Your task to perform on an android device: set the stopwatch Image 0: 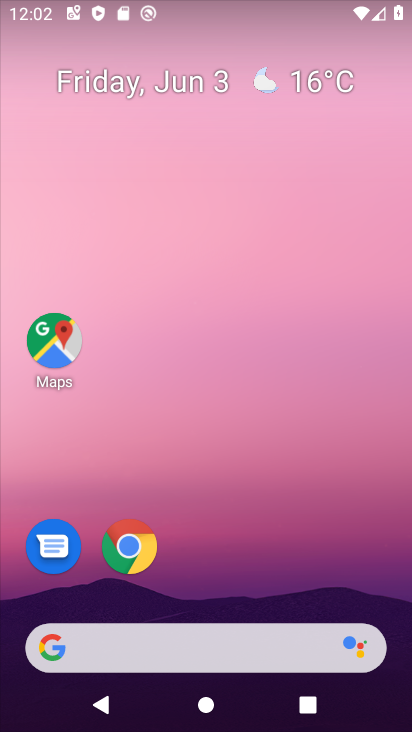
Step 0: drag from (229, 564) to (229, 138)
Your task to perform on an android device: set the stopwatch Image 1: 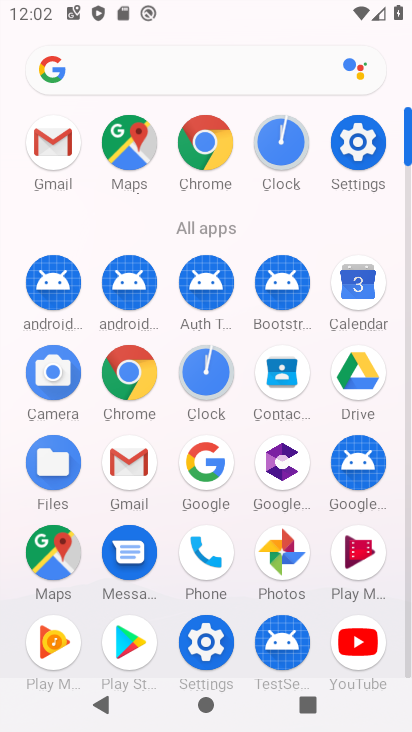
Step 1: click (276, 149)
Your task to perform on an android device: set the stopwatch Image 2: 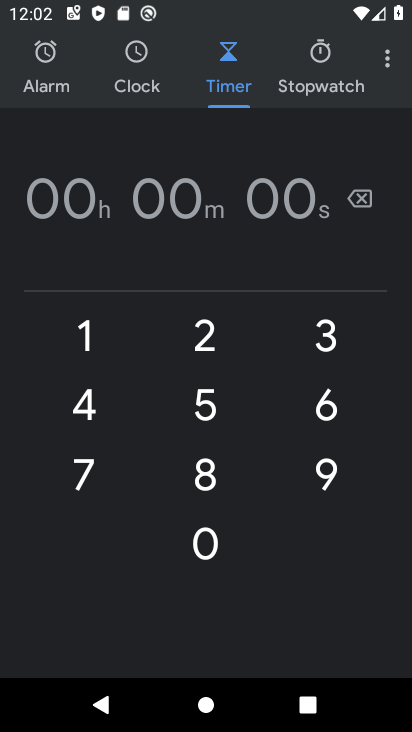
Step 2: click (312, 58)
Your task to perform on an android device: set the stopwatch Image 3: 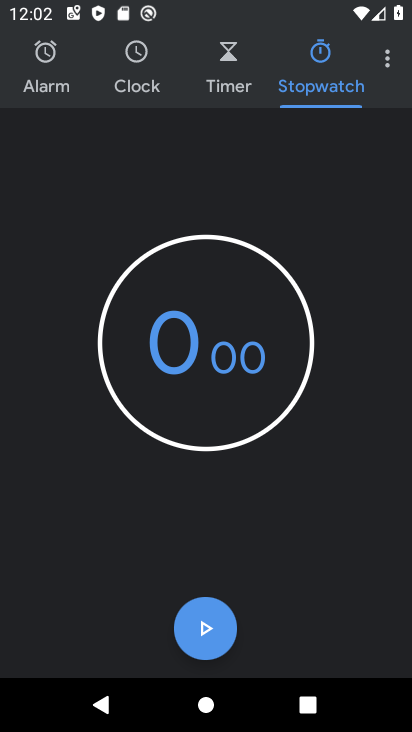
Step 3: task complete